Your task to perform on an android device: check data usage Image 0: 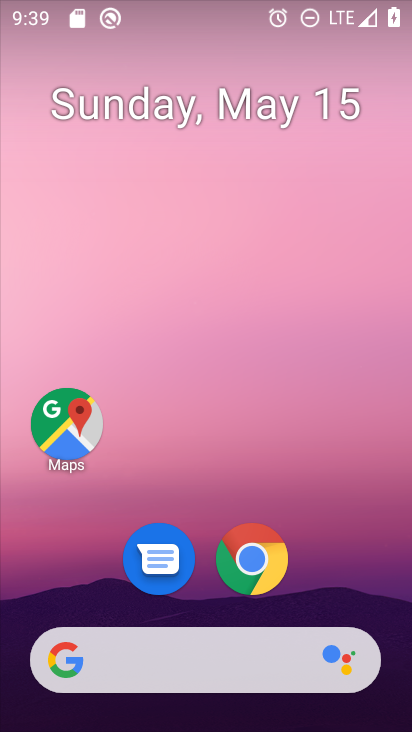
Step 0: drag from (336, 599) to (288, 89)
Your task to perform on an android device: check data usage Image 1: 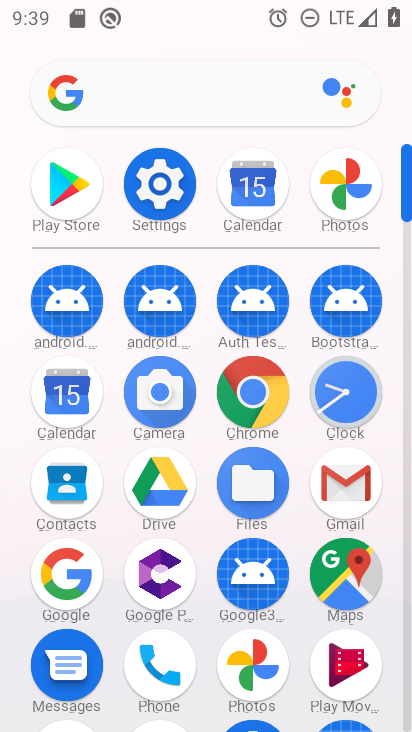
Step 1: click (167, 209)
Your task to perform on an android device: check data usage Image 2: 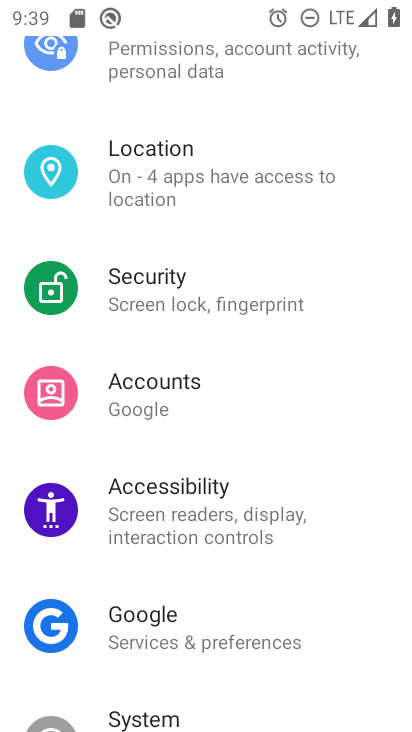
Step 2: drag from (153, 203) to (154, 555)
Your task to perform on an android device: check data usage Image 3: 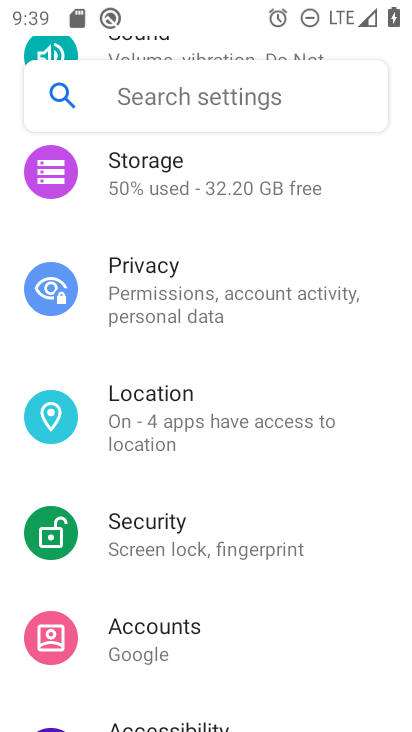
Step 3: drag from (215, 173) to (207, 589)
Your task to perform on an android device: check data usage Image 4: 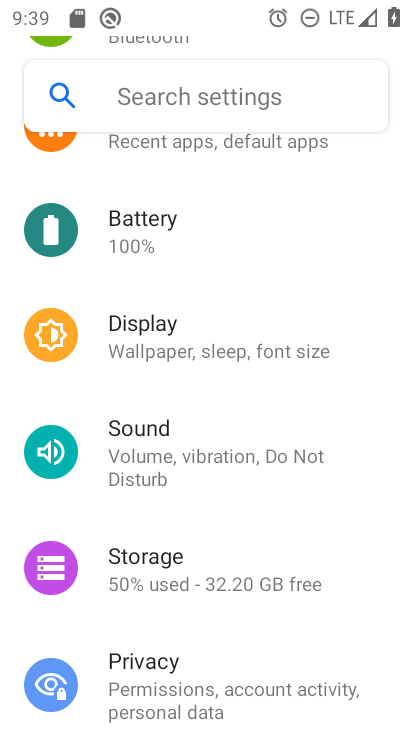
Step 4: drag from (264, 194) to (267, 664)
Your task to perform on an android device: check data usage Image 5: 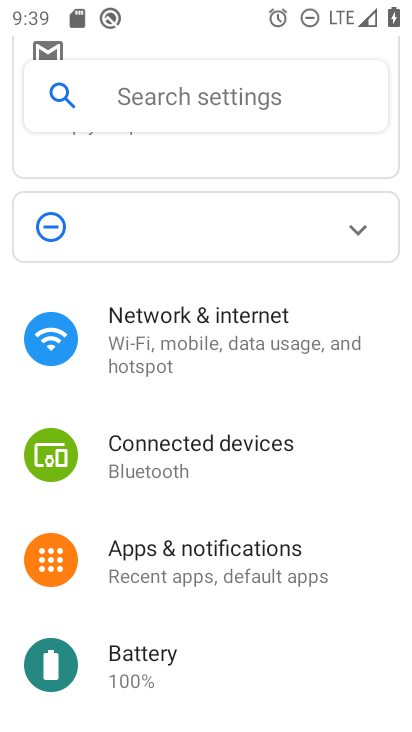
Step 5: click (271, 335)
Your task to perform on an android device: check data usage Image 6: 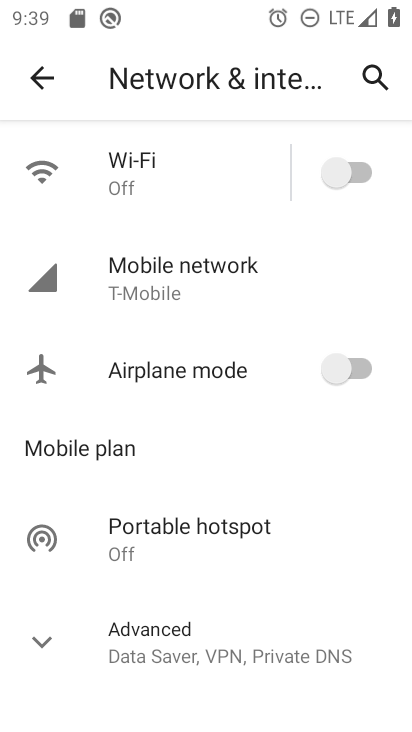
Step 6: click (240, 267)
Your task to perform on an android device: check data usage Image 7: 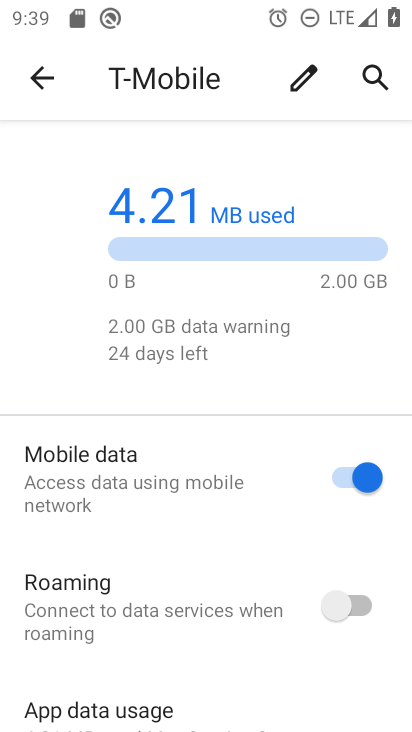
Step 7: task complete